Your task to perform on an android device: Open sound settings Image 0: 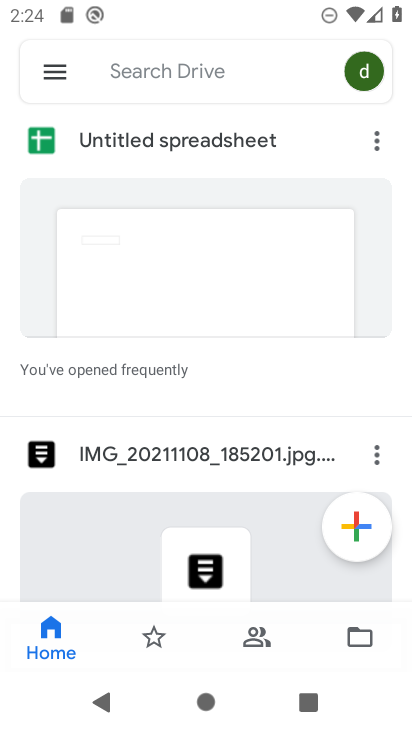
Step 0: press home button
Your task to perform on an android device: Open sound settings Image 1: 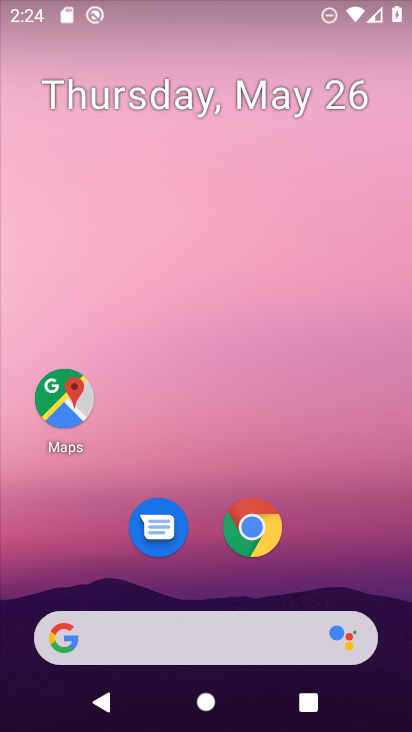
Step 1: drag from (174, 574) to (249, 3)
Your task to perform on an android device: Open sound settings Image 2: 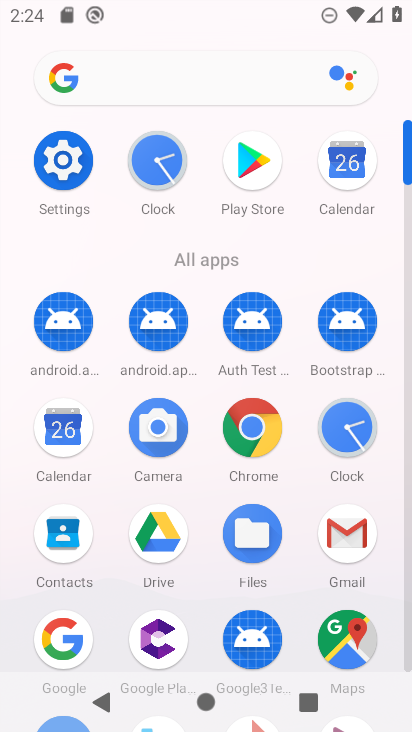
Step 2: click (52, 149)
Your task to perform on an android device: Open sound settings Image 3: 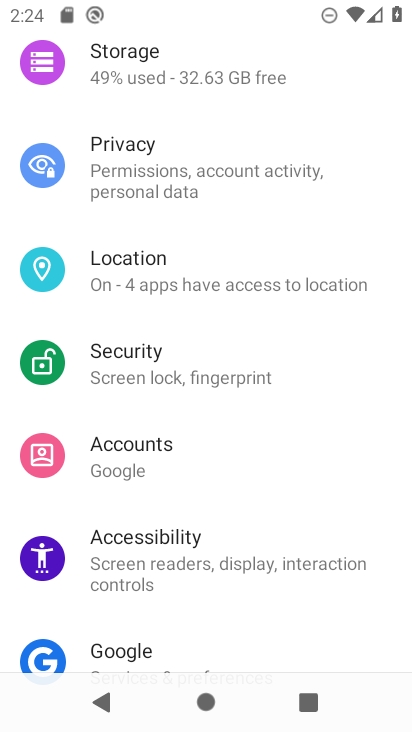
Step 3: drag from (240, 163) to (188, 661)
Your task to perform on an android device: Open sound settings Image 4: 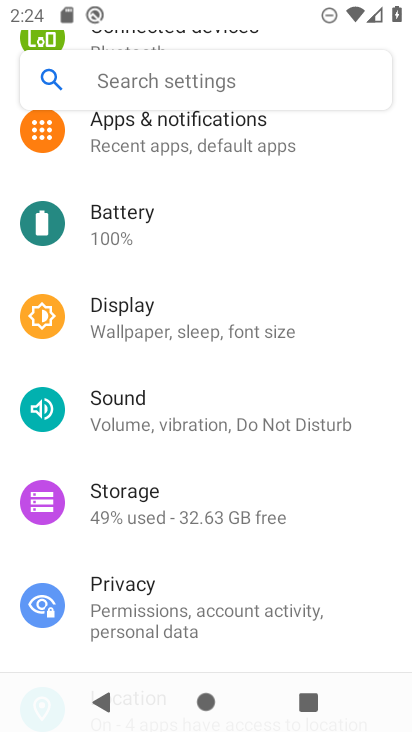
Step 4: click (148, 395)
Your task to perform on an android device: Open sound settings Image 5: 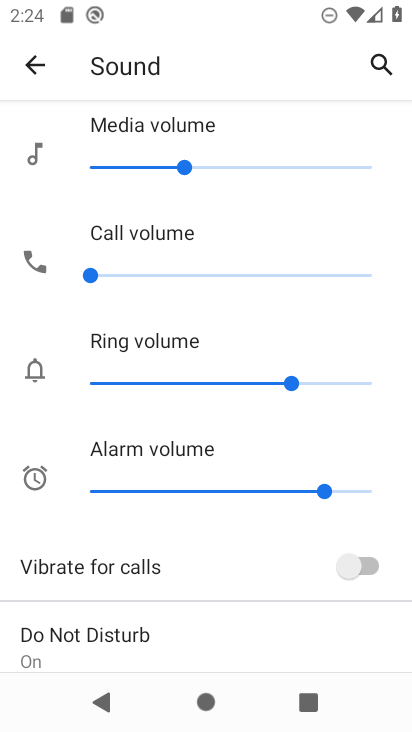
Step 5: task complete